Your task to perform on an android device: check data usage Image 0: 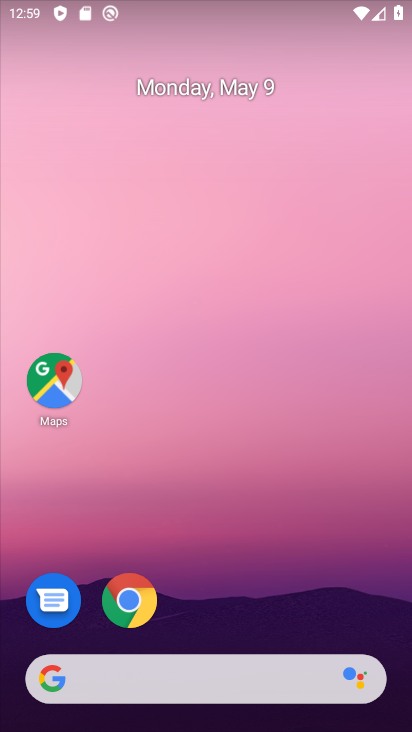
Step 0: drag from (189, 608) to (199, 51)
Your task to perform on an android device: check data usage Image 1: 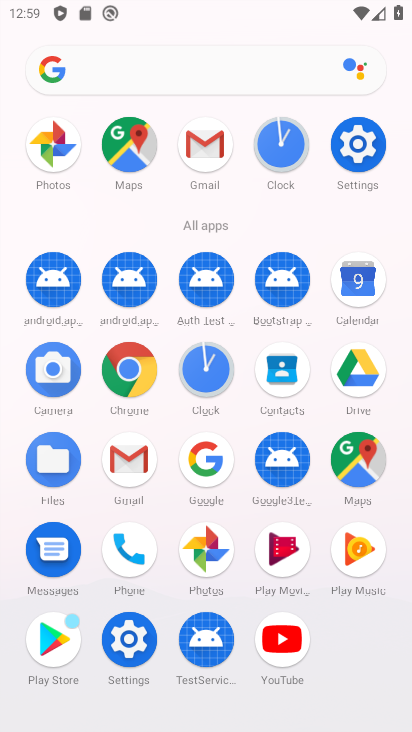
Step 1: click (370, 168)
Your task to perform on an android device: check data usage Image 2: 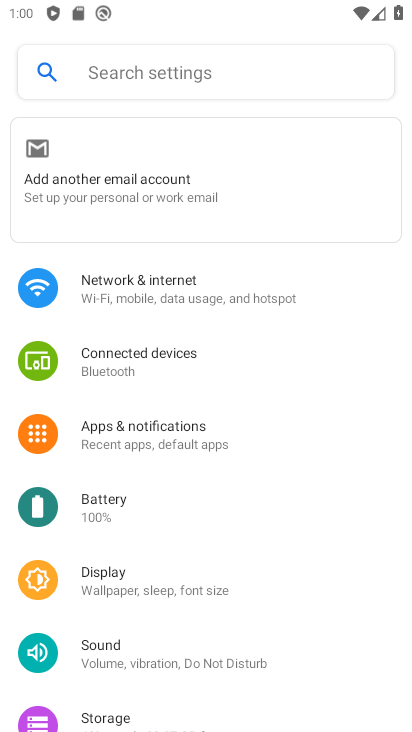
Step 2: click (152, 310)
Your task to perform on an android device: check data usage Image 3: 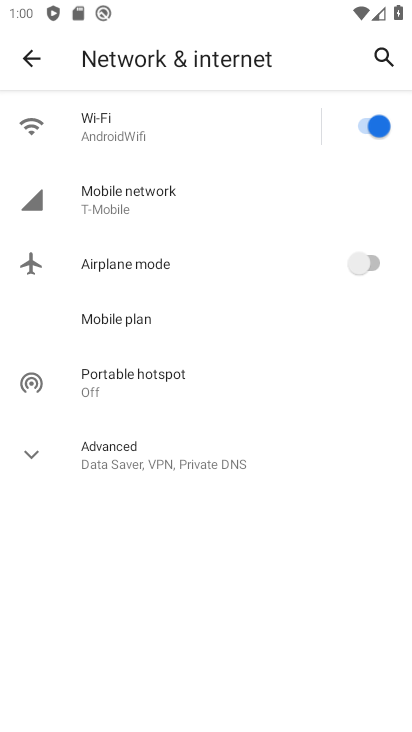
Step 3: click (127, 205)
Your task to perform on an android device: check data usage Image 4: 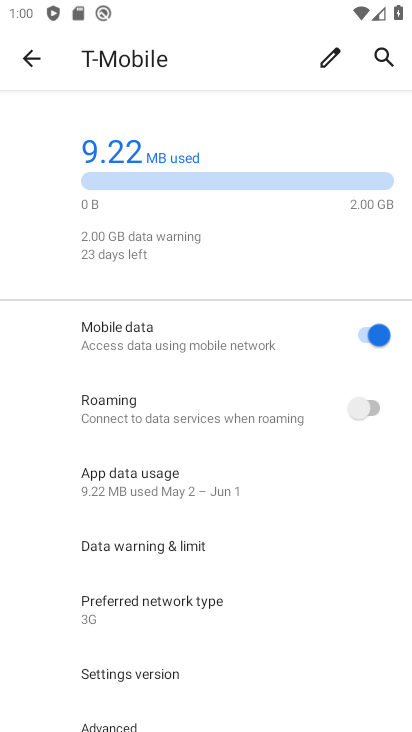
Step 4: task complete